Your task to perform on an android device: Open Youtube and go to the subscriptions tab Image 0: 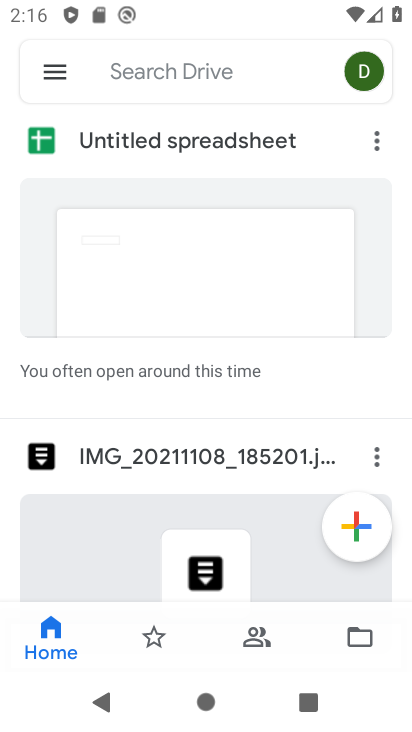
Step 0: press home button
Your task to perform on an android device: Open Youtube and go to the subscriptions tab Image 1: 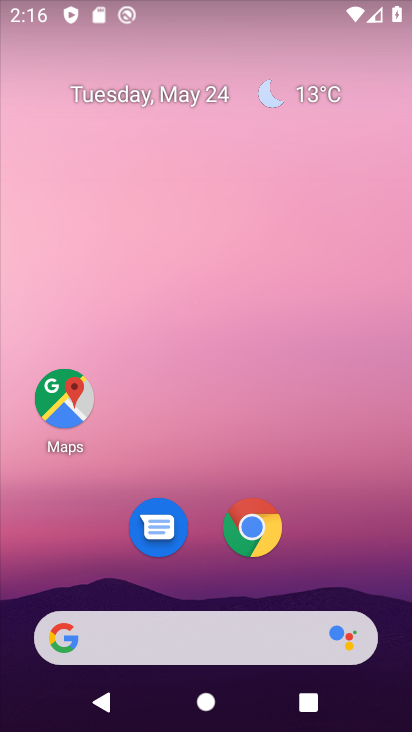
Step 1: drag from (304, 584) to (355, 155)
Your task to perform on an android device: Open Youtube and go to the subscriptions tab Image 2: 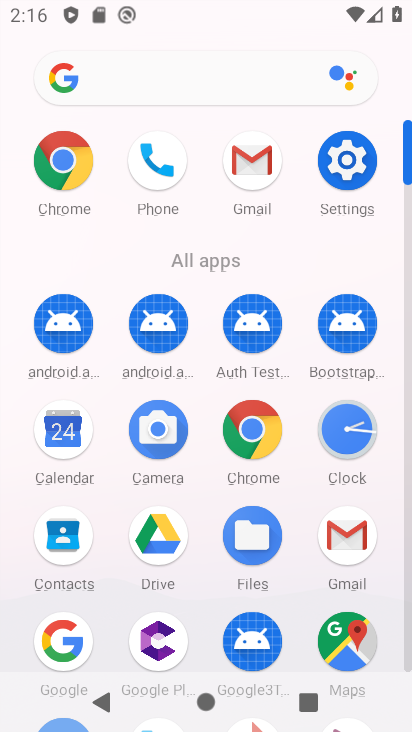
Step 2: drag from (305, 611) to (327, 274)
Your task to perform on an android device: Open Youtube and go to the subscriptions tab Image 3: 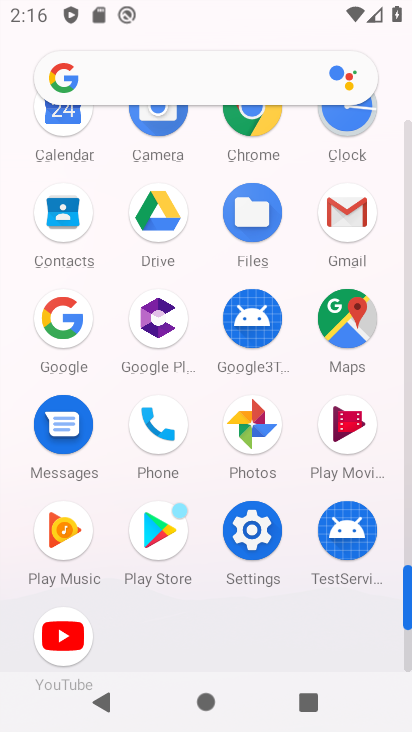
Step 3: click (47, 634)
Your task to perform on an android device: Open Youtube and go to the subscriptions tab Image 4: 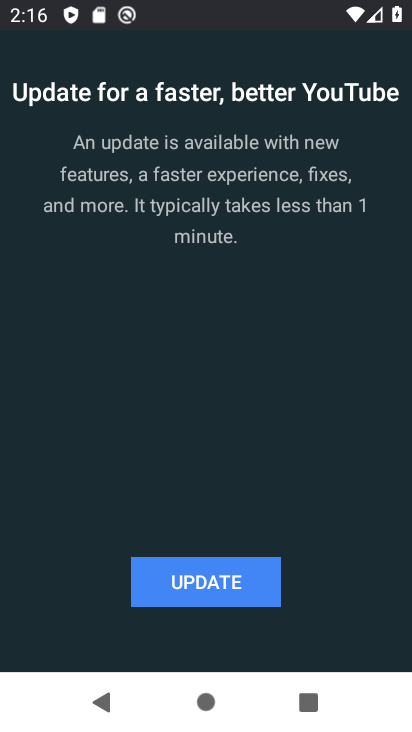
Step 4: click (184, 591)
Your task to perform on an android device: Open Youtube and go to the subscriptions tab Image 5: 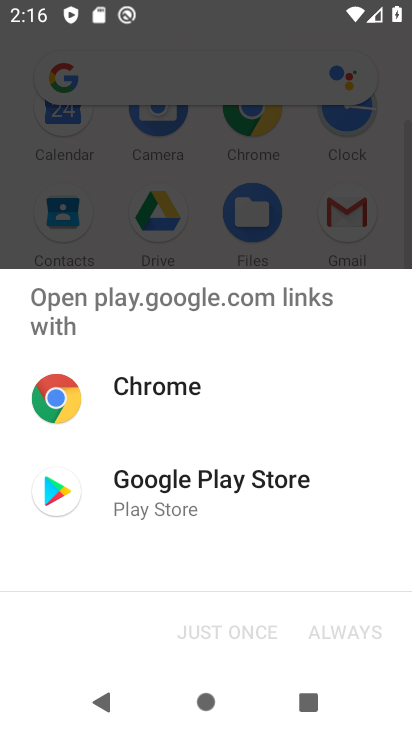
Step 5: click (162, 512)
Your task to perform on an android device: Open Youtube and go to the subscriptions tab Image 6: 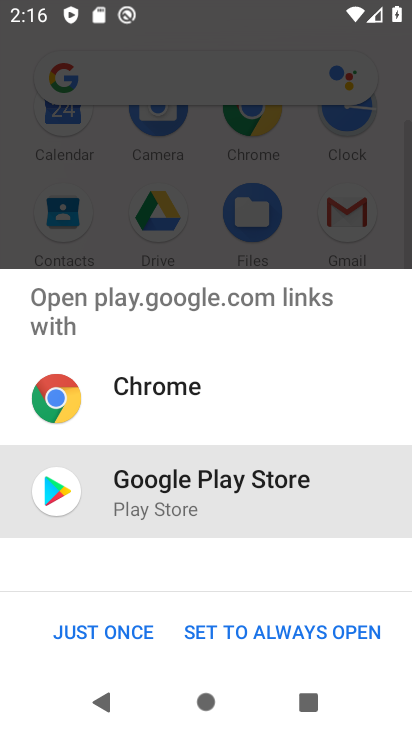
Step 6: click (83, 634)
Your task to perform on an android device: Open Youtube and go to the subscriptions tab Image 7: 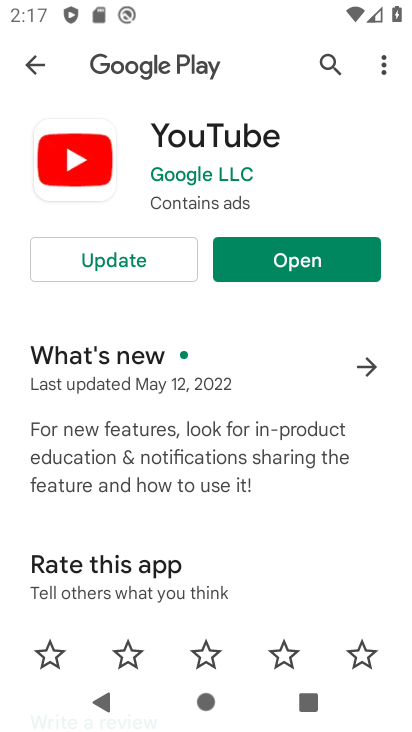
Step 7: click (151, 268)
Your task to perform on an android device: Open Youtube and go to the subscriptions tab Image 8: 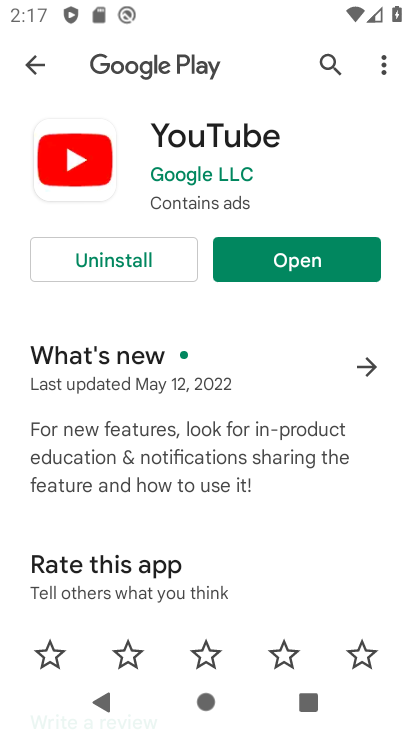
Step 8: click (252, 266)
Your task to perform on an android device: Open Youtube and go to the subscriptions tab Image 9: 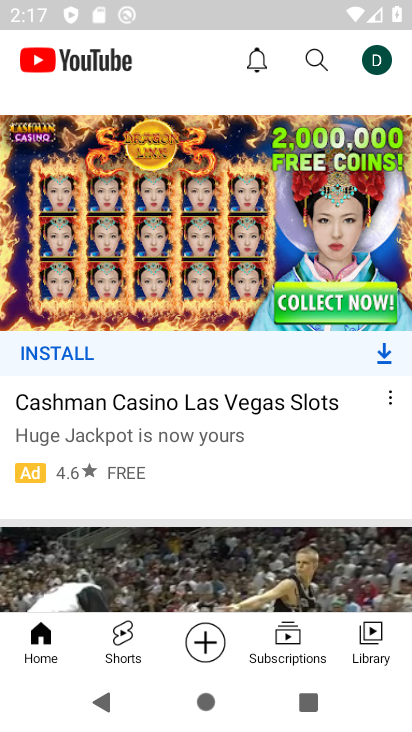
Step 9: click (299, 631)
Your task to perform on an android device: Open Youtube and go to the subscriptions tab Image 10: 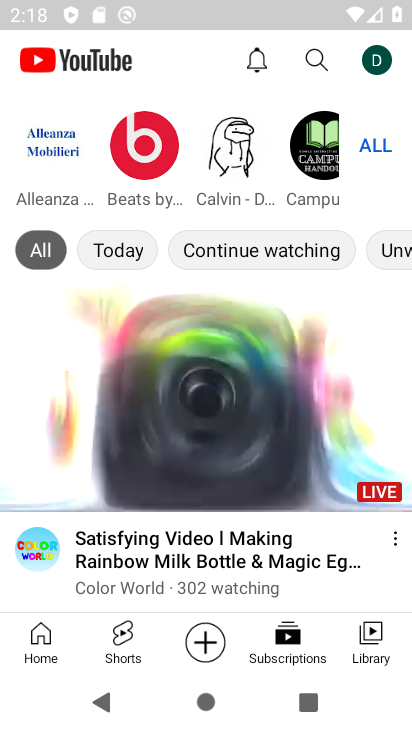
Step 10: task complete